Your task to perform on an android device: Look up the top rated 18v miter saw on Home Depot. Image 0: 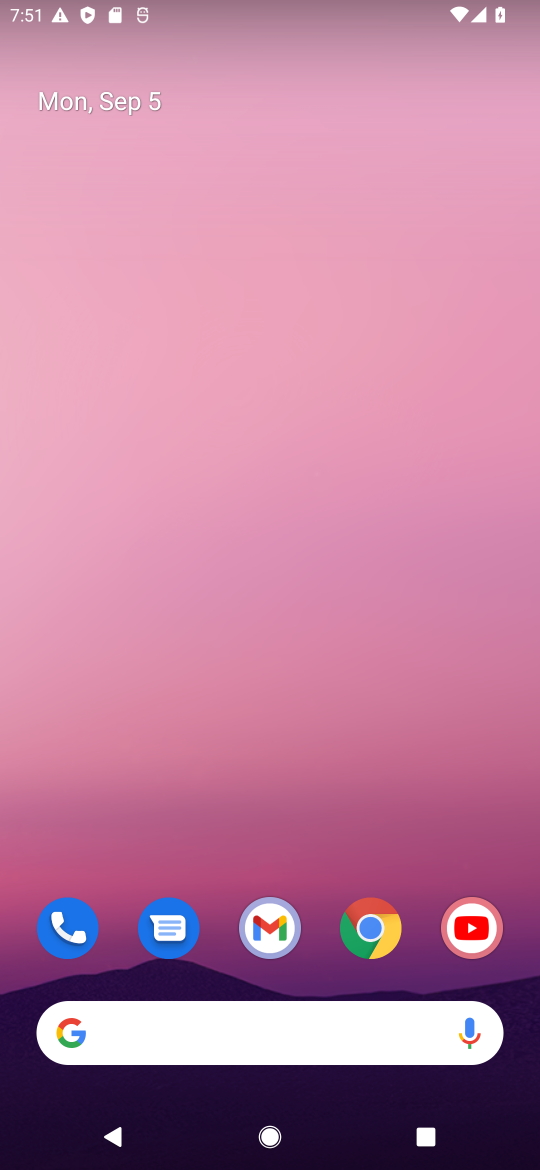
Step 0: click (372, 926)
Your task to perform on an android device: Look up the top rated 18v miter saw on Home Depot. Image 1: 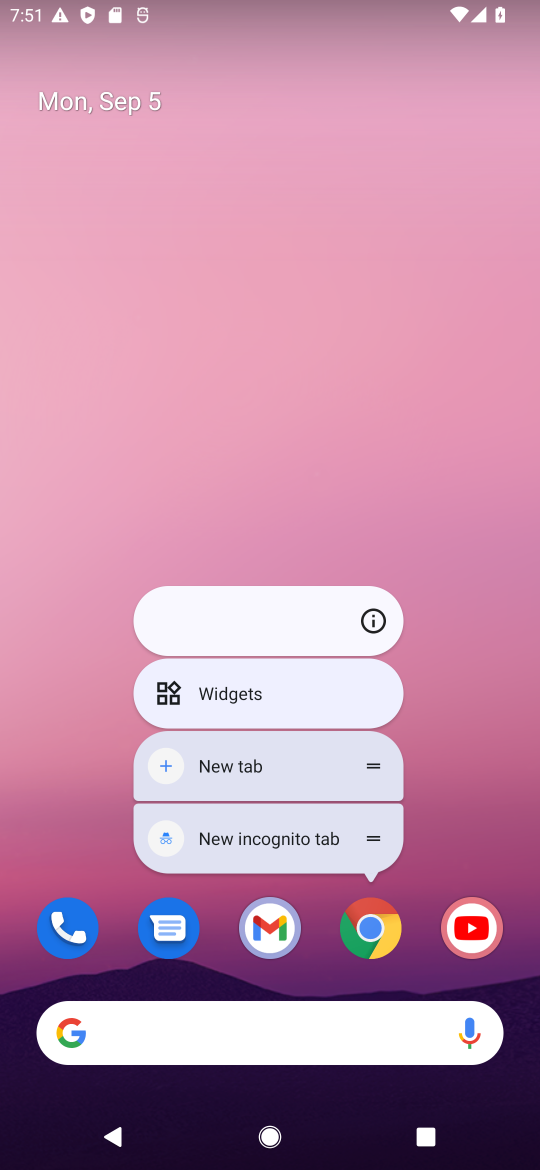
Step 1: click (372, 926)
Your task to perform on an android device: Look up the top rated 18v miter saw on Home Depot. Image 2: 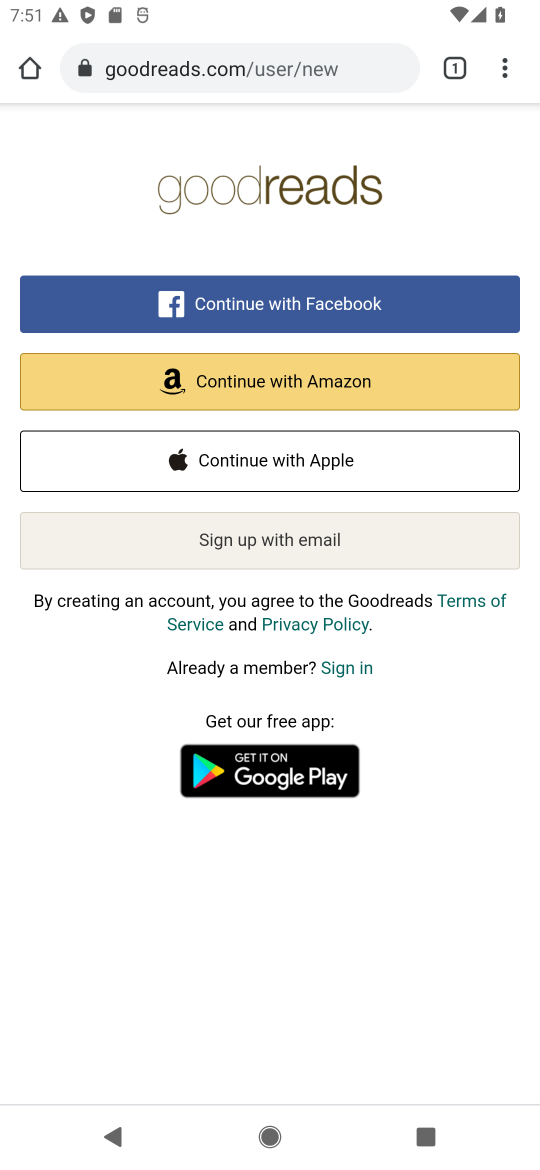
Step 2: click (260, 68)
Your task to perform on an android device: Look up the top rated 18v miter saw on Home Depot. Image 3: 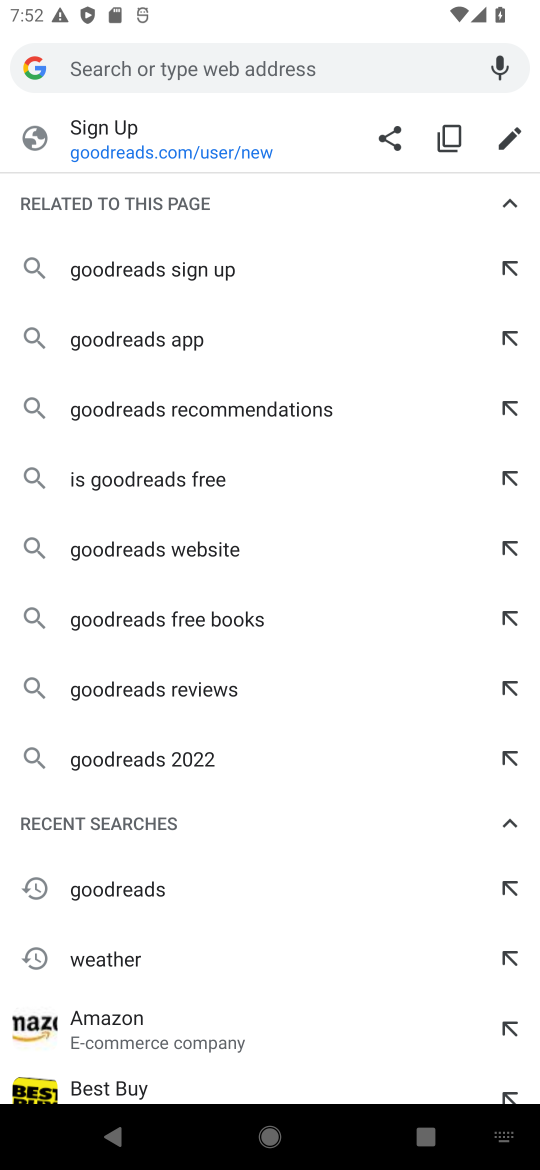
Step 3: type "home depot"
Your task to perform on an android device: Look up the top rated 18v miter saw on Home Depot. Image 4: 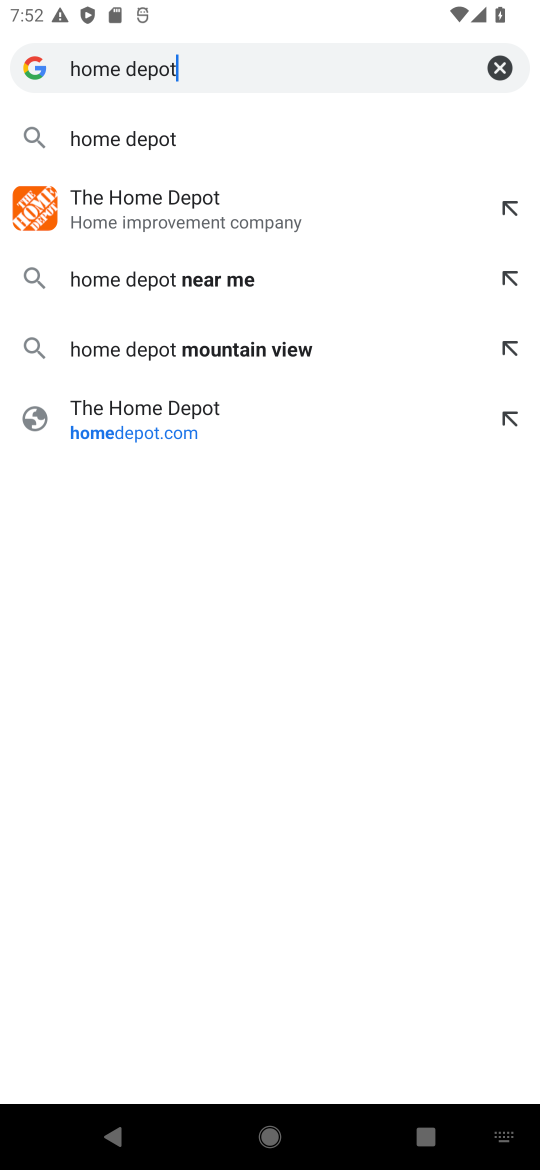
Step 4: click (170, 211)
Your task to perform on an android device: Look up the top rated 18v miter saw on Home Depot. Image 5: 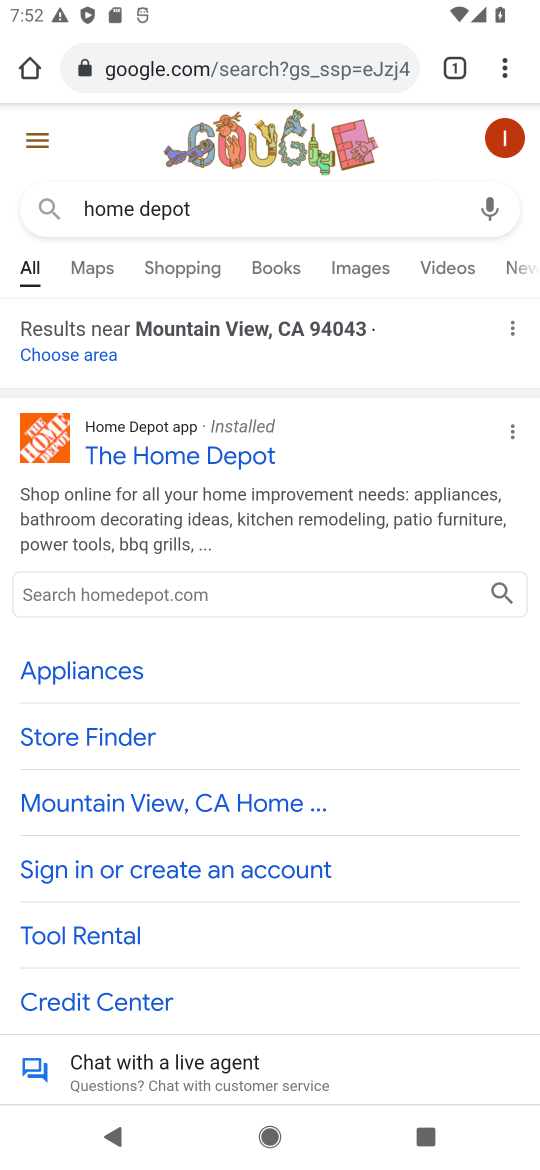
Step 5: click (214, 458)
Your task to perform on an android device: Look up the top rated 18v miter saw on Home Depot. Image 6: 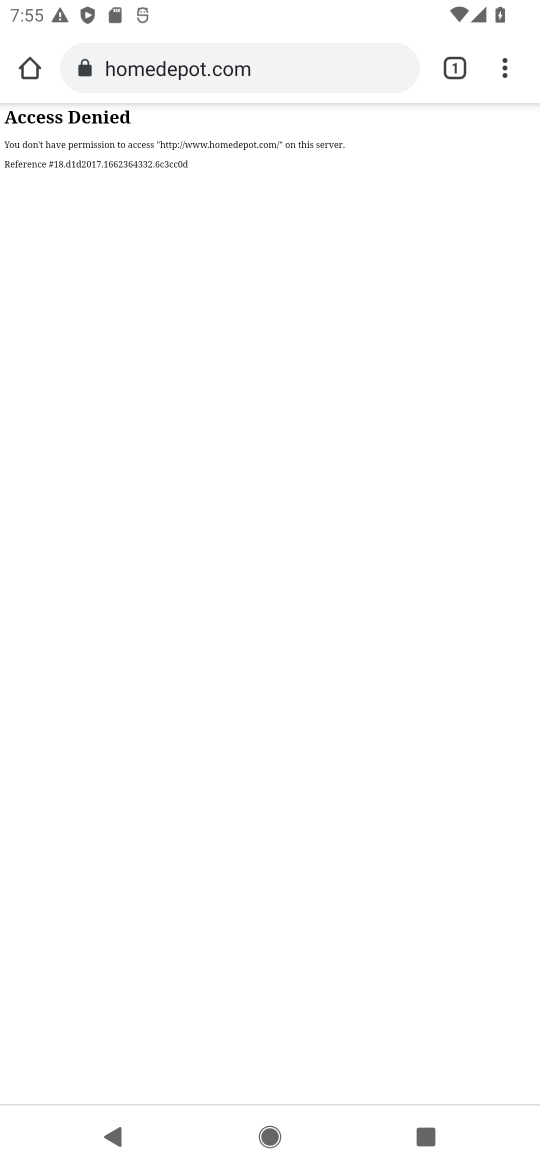
Step 6: task complete